Your task to perform on an android device: Open sound settings Image 0: 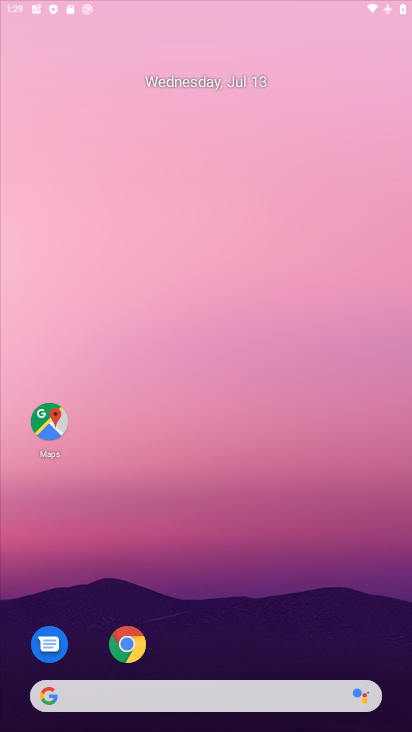
Step 0: drag from (335, 622) to (257, 126)
Your task to perform on an android device: Open sound settings Image 1: 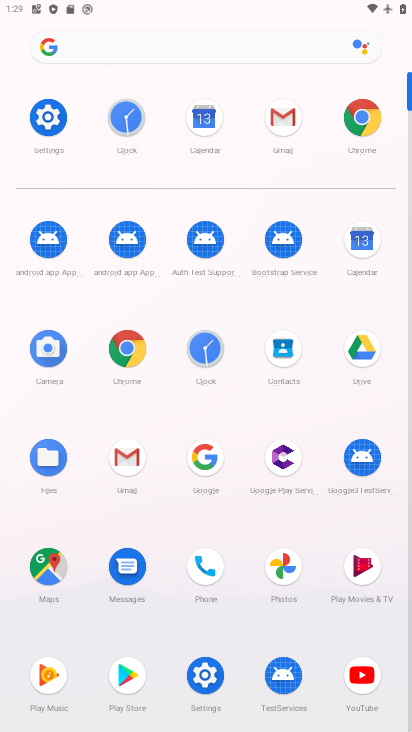
Step 1: click (48, 113)
Your task to perform on an android device: Open sound settings Image 2: 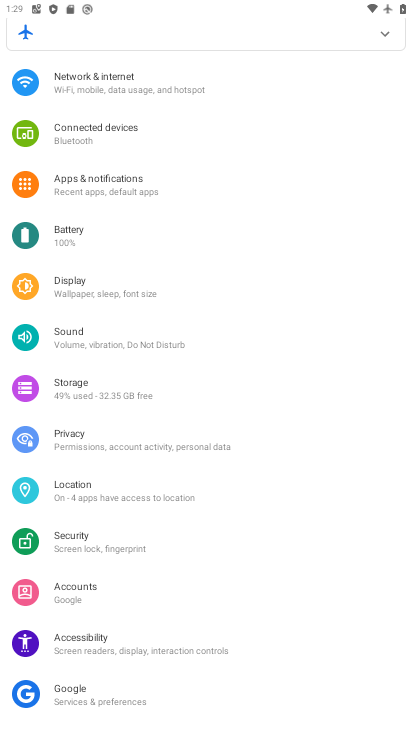
Step 2: click (78, 339)
Your task to perform on an android device: Open sound settings Image 3: 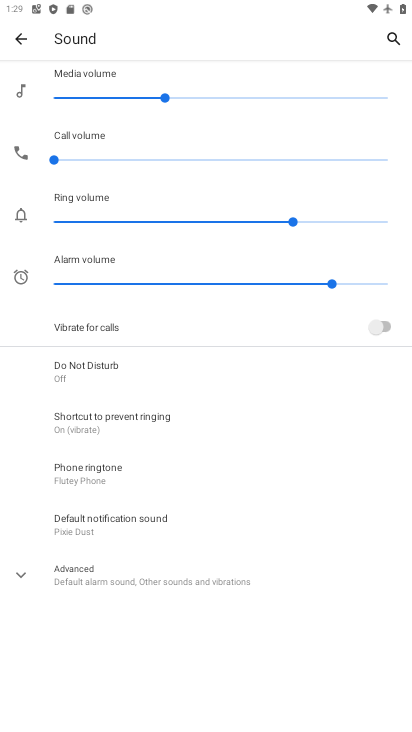
Step 3: task complete